Your task to perform on an android device: create a new album in the google photos Image 0: 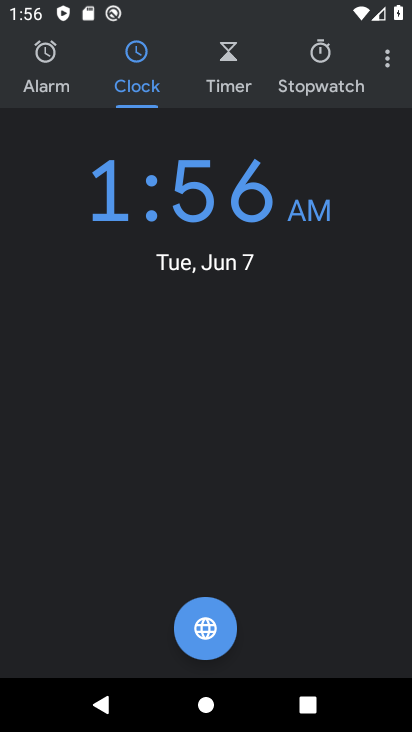
Step 0: press home button
Your task to perform on an android device: create a new album in the google photos Image 1: 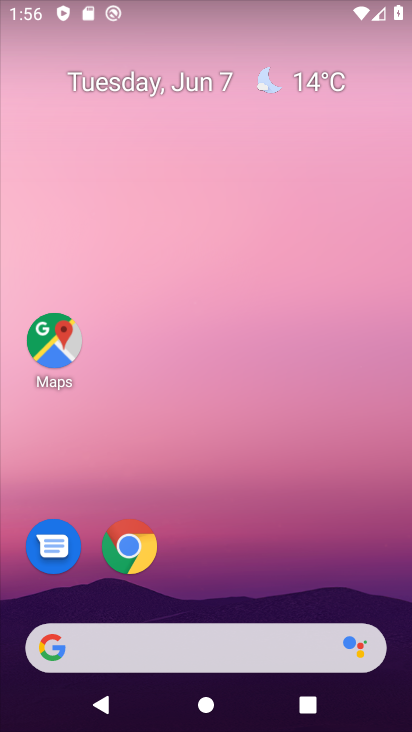
Step 1: drag from (205, 599) to (179, 133)
Your task to perform on an android device: create a new album in the google photos Image 2: 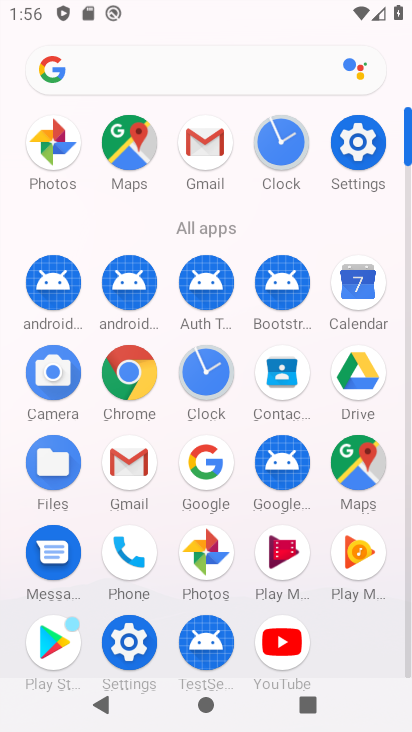
Step 2: click (44, 140)
Your task to perform on an android device: create a new album in the google photos Image 3: 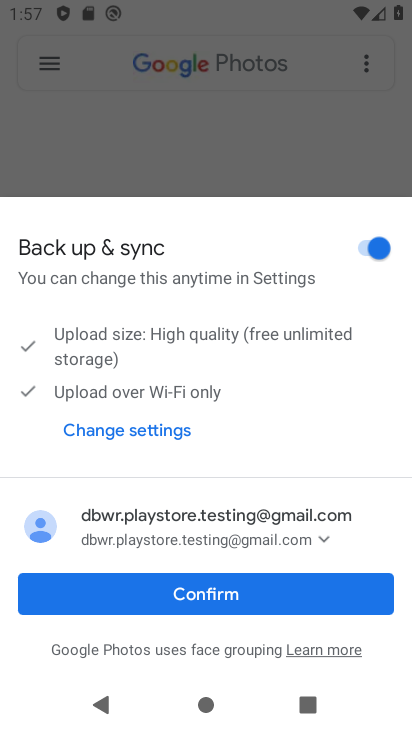
Step 3: click (216, 599)
Your task to perform on an android device: create a new album in the google photos Image 4: 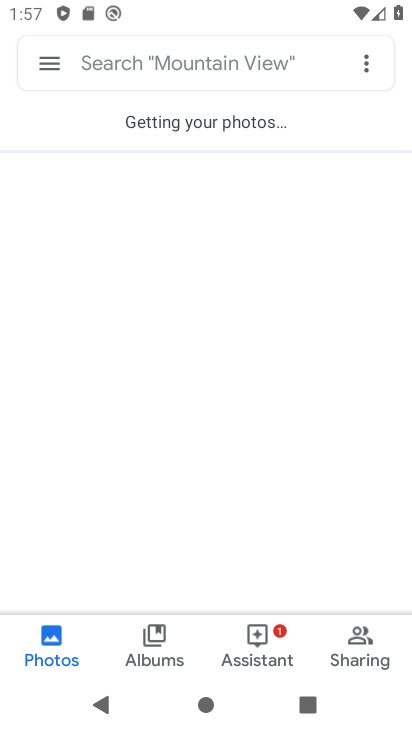
Step 4: click (216, 599)
Your task to perform on an android device: create a new album in the google photos Image 5: 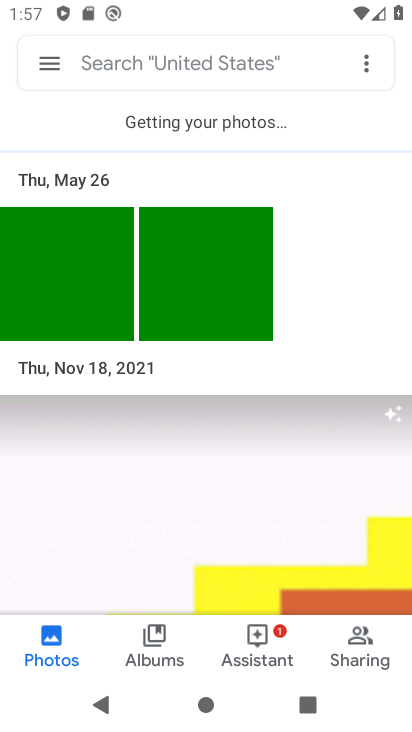
Step 5: click (166, 372)
Your task to perform on an android device: create a new album in the google photos Image 6: 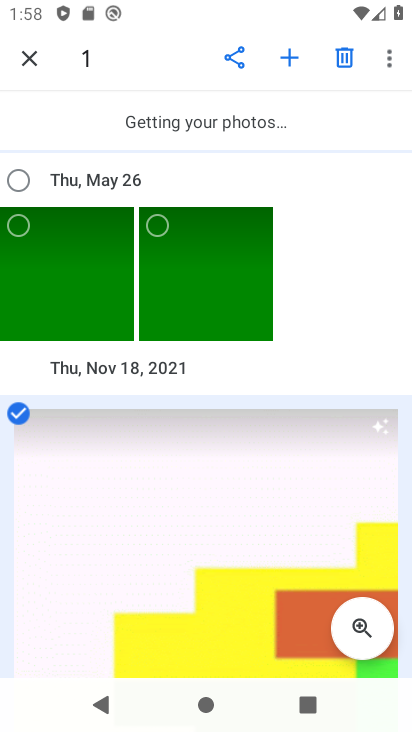
Step 6: click (289, 58)
Your task to perform on an android device: create a new album in the google photos Image 7: 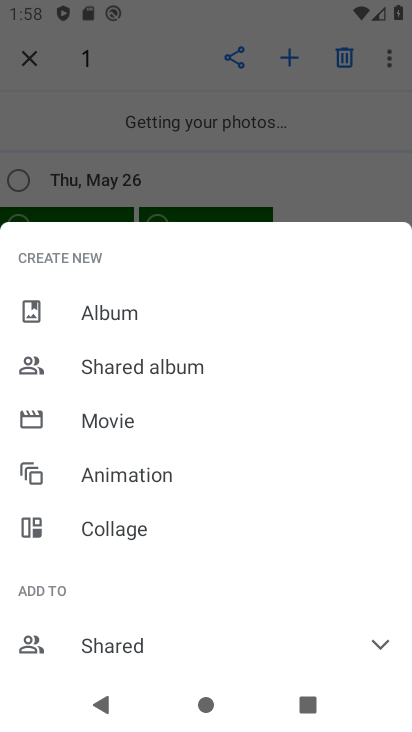
Step 7: click (163, 305)
Your task to perform on an android device: create a new album in the google photos Image 8: 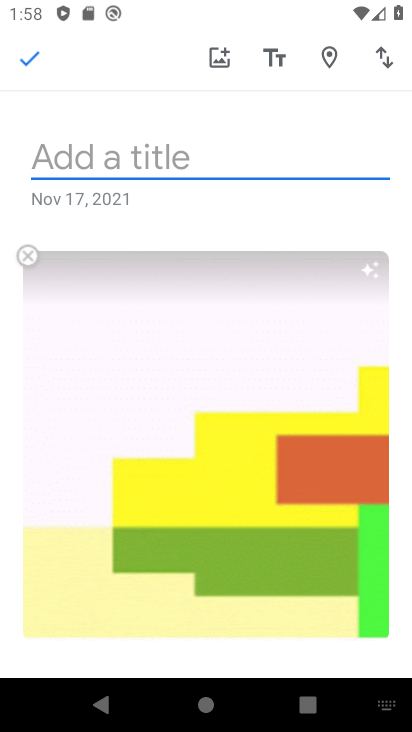
Step 8: type "87654356789"
Your task to perform on an android device: create a new album in the google photos Image 9: 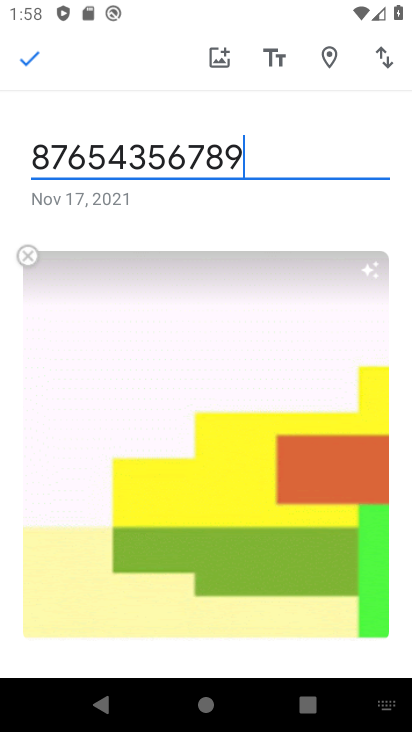
Step 9: type ""
Your task to perform on an android device: create a new album in the google photos Image 10: 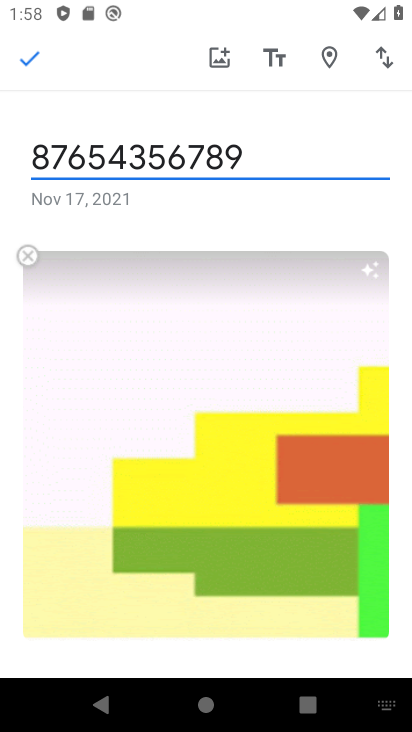
Step 10: click (46, 67)
Your task to perform on an android device: create a new album in the google photos Image 11: 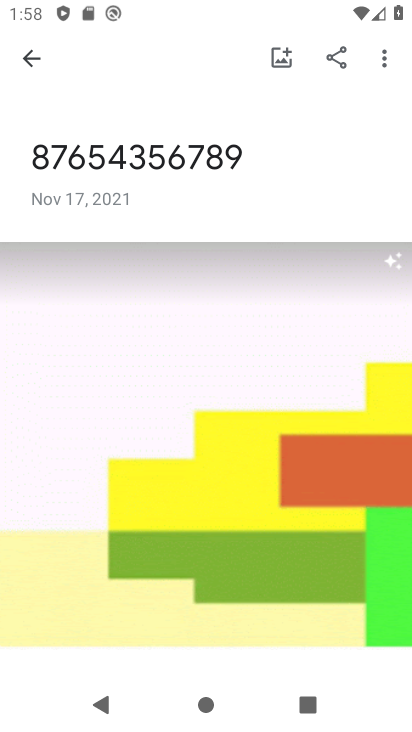
Step 11: task complete